Your task to perform on an android device: star an email in the gmail app Image 0: 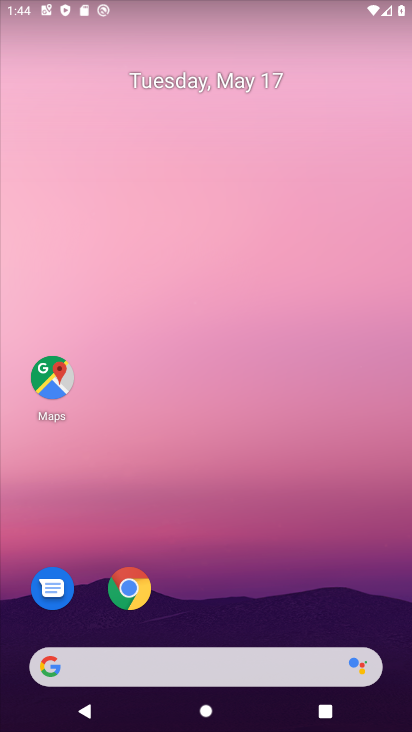
Step 0: drag from (213, 610) to (184, 158)
Your task to perform on an android device: star an email in the gmail app Image 1: 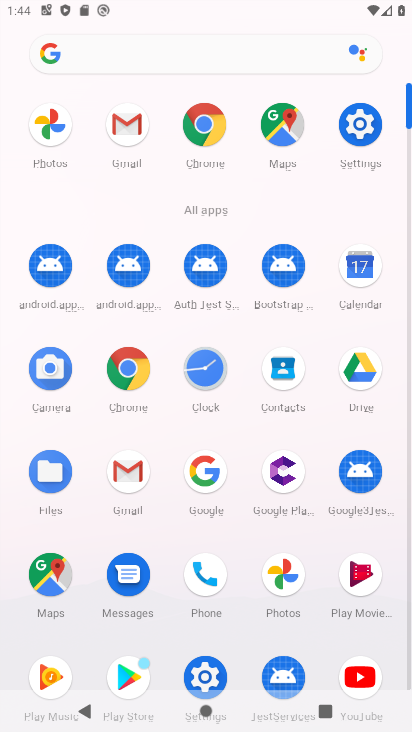
Step 1: click (129, 128)
Your task to perform on an android device: star an email in the gmail app Image 2: 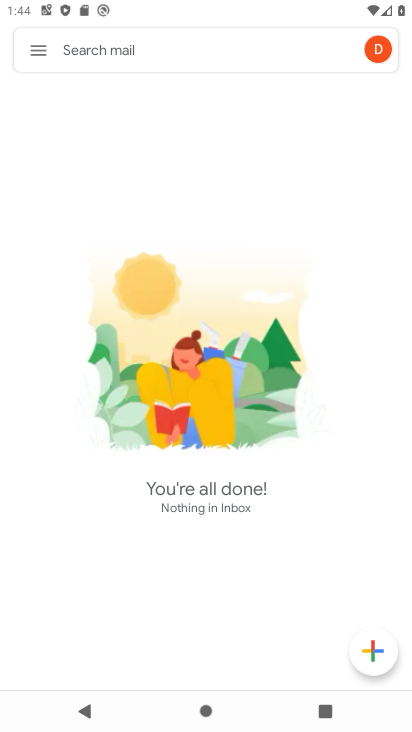
Step 2: click (33, 53)
Your task to perform on an android device: star an email in the gmail app Image 3: 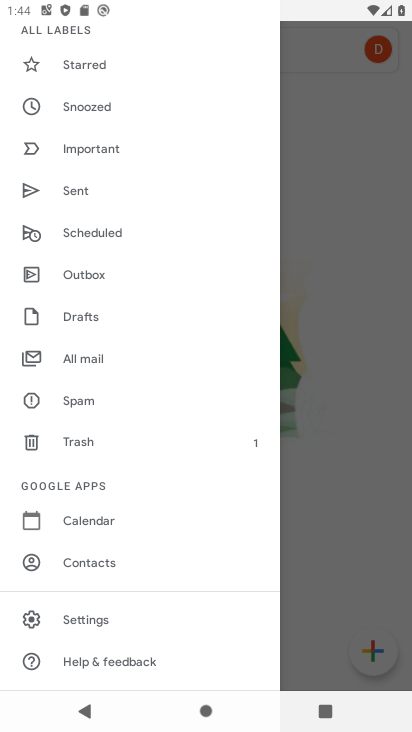
Step 3: drag from (190, 175) to (159, 537)
Your task to perform on an android device: star an email in the gmail app Image 4: 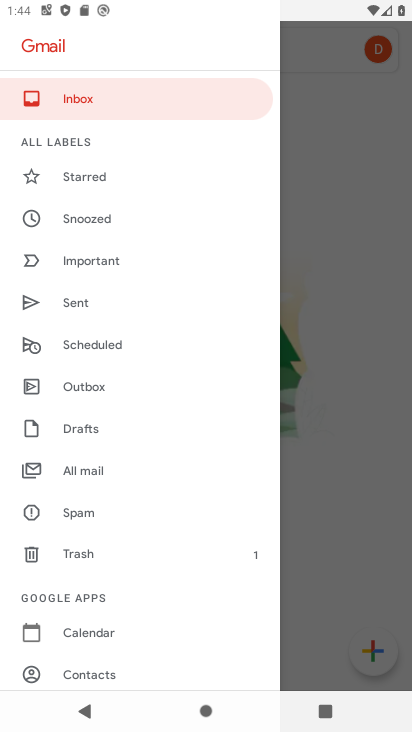
Step 4: click (248, 552)
Your task to perform on an android device: star an email in the gmail app Image 5: 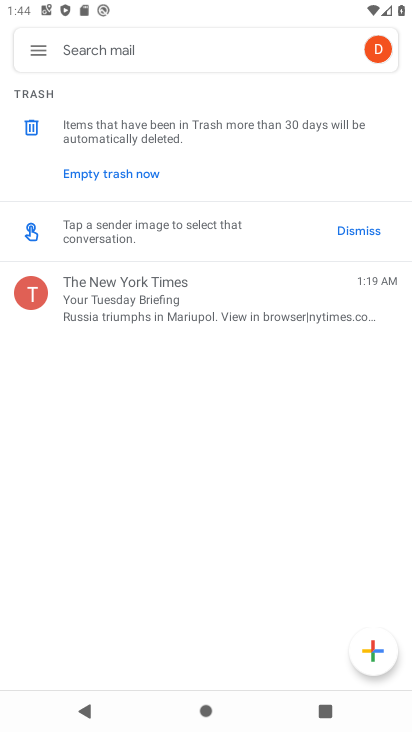
Step 5: click (222, 310)
Your task to perform on an android device: star an email in the gmail app Image 6: 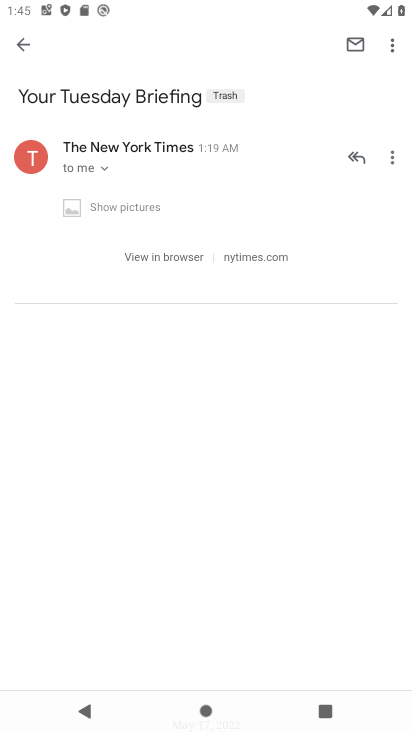
Step 6: click (391, 43)
Your task to perform on an android device: star an email in the gmail app Image 7: 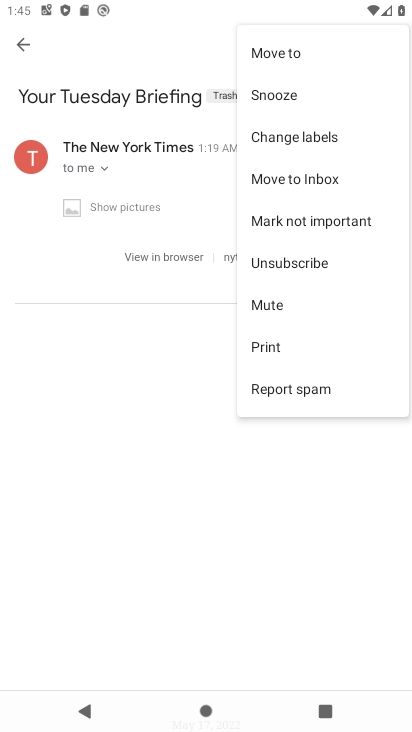
Step 7: click (169, 369)
Your task to perform on an android device: star an email in the gmail app Image 8: 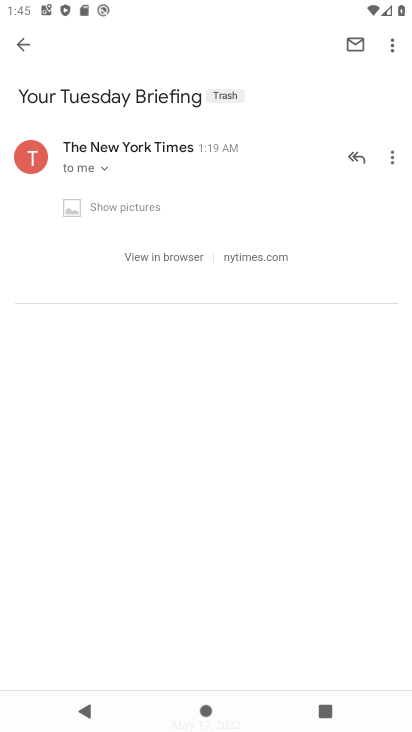
Step 8: click (389, 157)
Your task to perform on an android device: star an email in the gmail app Image 9: 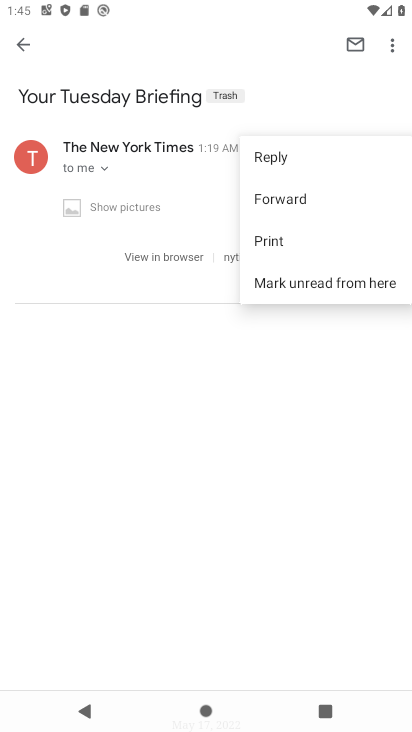
Step 9: click (227, 389)
Your task to perform on an android device: star an email in the gmail app Image 10: 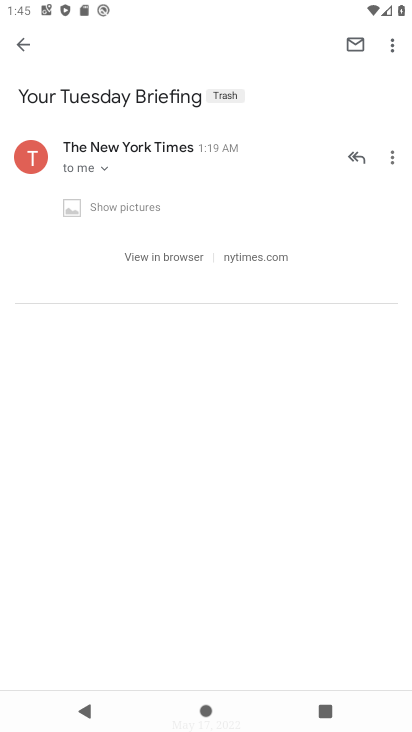
Step 10: task complete